Your task to perform on an android device: Go to Yahoo.com Image 0: 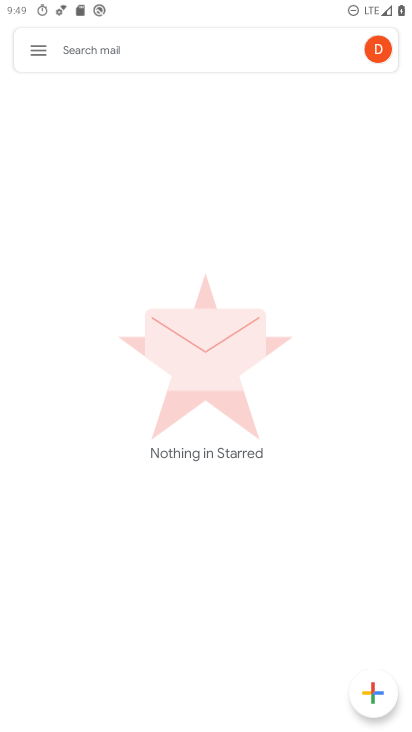
Step 0: press home button
Your task to perform on an android device: Go to Yahoo.com Image 1: 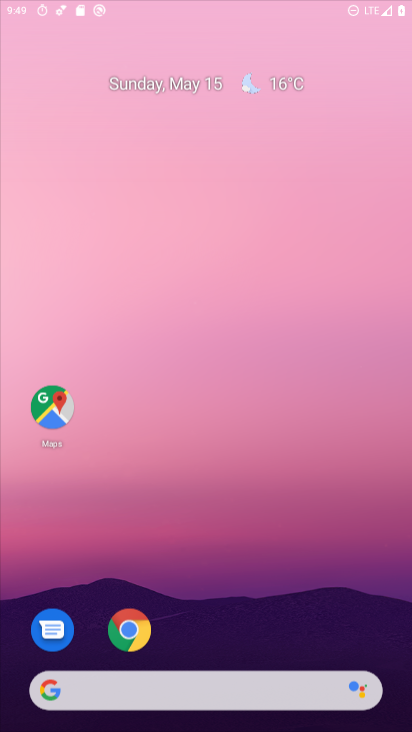
Step 1: drag from (273, 571) to (403, 328)
Your task to perform on an android device: Go to Yahoo.com Image 2: 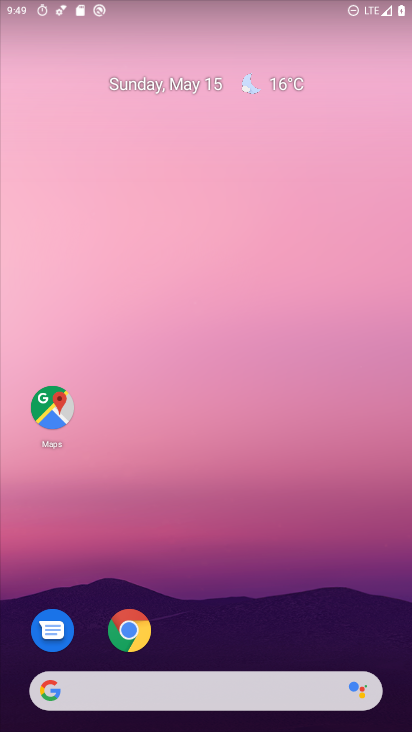
Step 2: click (164, 693)
Your task to perform on an android device: Go to Yahoo.com Image 3: 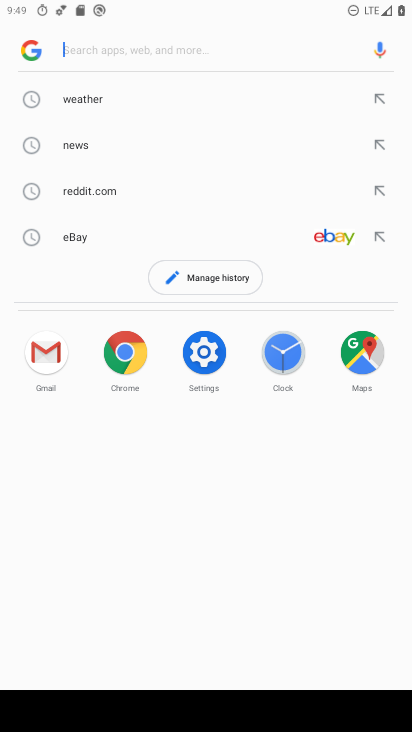
Step 3: type "yahoo"
Your task to perform on an android device: Go to Yahoo.com Image 4: 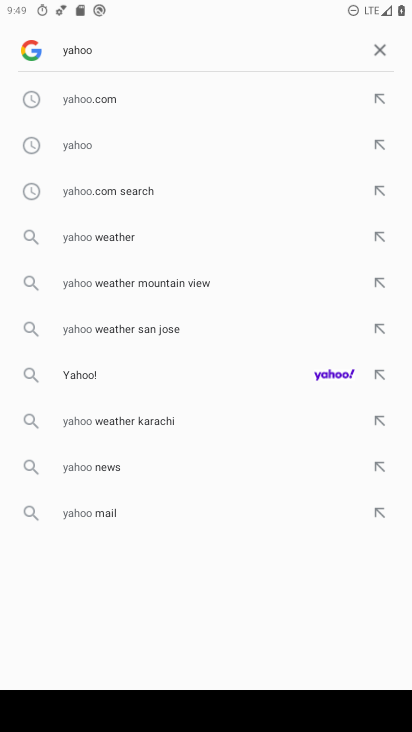
Step 4: click (113, 112)
Your task to perform on an android device: Go to Yahoo.com Image 5: 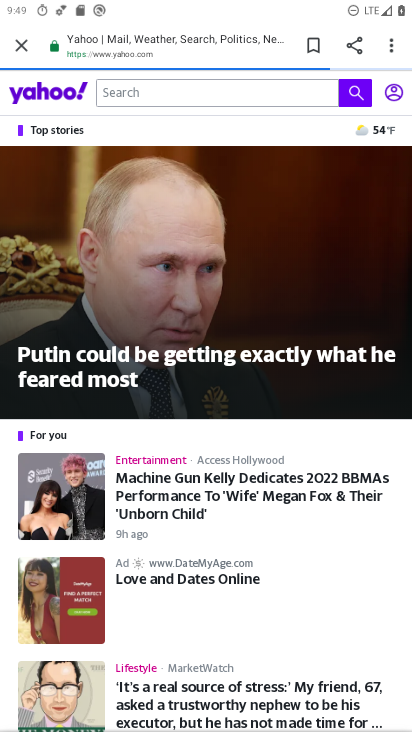
Step 5: task complete